Your task to perform on an android device: Open calendar and show me the third week of next month Image 0: 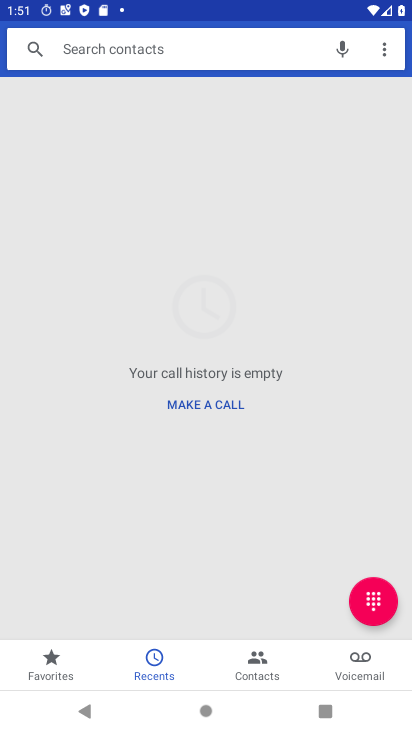
Step 0: press home button
Your task to perform on an android device: Open calendar and show me the third week of next month Image 1: 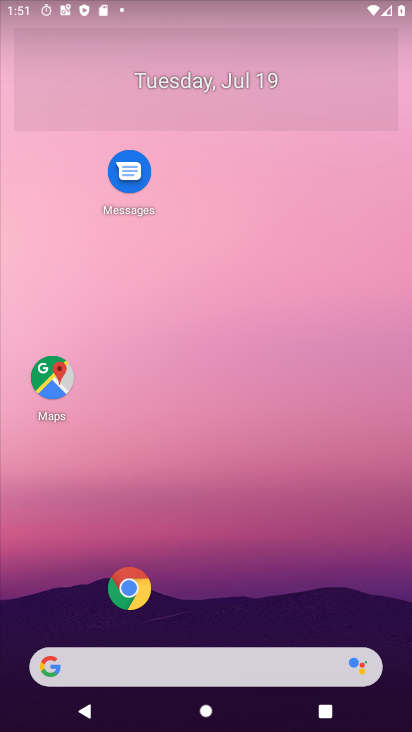
Step 1: drag from (33, 696) to (135, 284)
Your task to perform on an android device: Open calendar and show me the third week of next month Image 2: 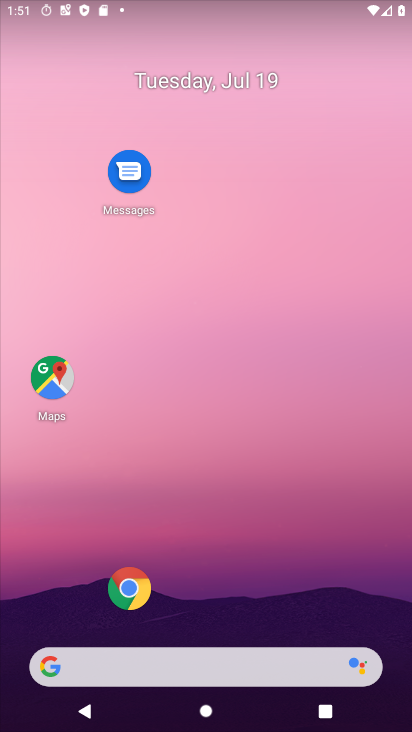
Step 2: drag from (38, 617) to (132, 168)
Your task to perform on an android device: Open calendar and show me the third week of next month Image 3: 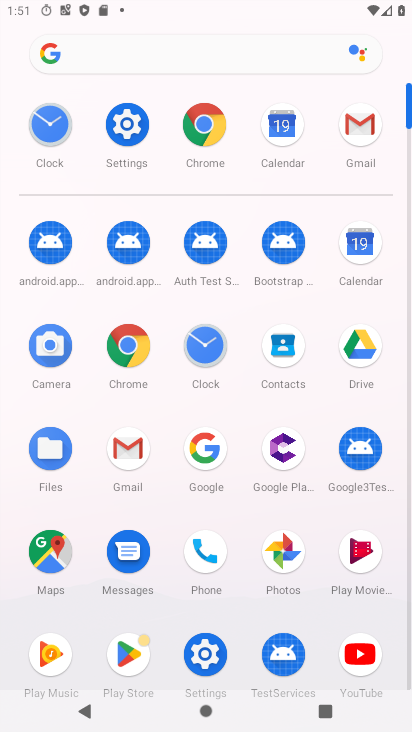
Step 3: click (361, 248)
Your task to perform on an android device: Open calendar and show me the third week of next month Image 4: 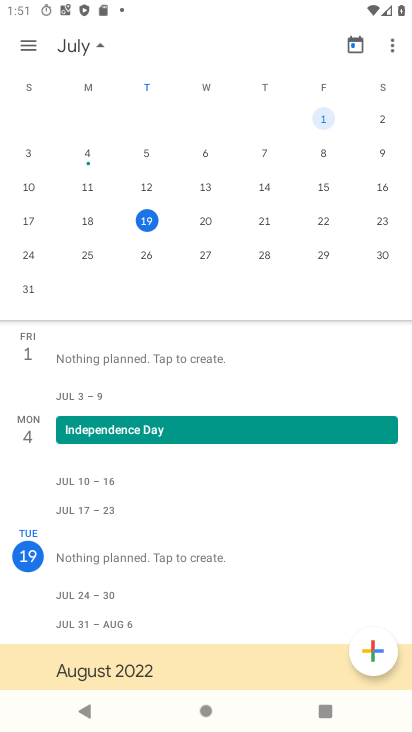
Step 4: drag from (373, 169) to (71, 226)
Your task to perform on an android device: Open calendar and show me the third week of next month Image 5: 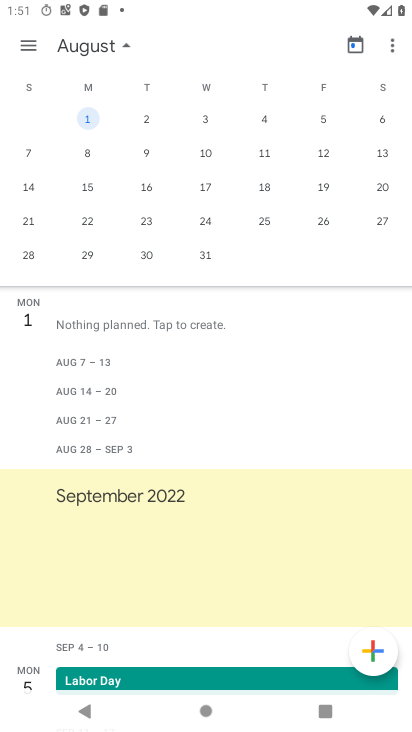
Step 5: click (85, 179)
Your task to perform on an android device: Open calendar and show me the third week of next month Image 6: 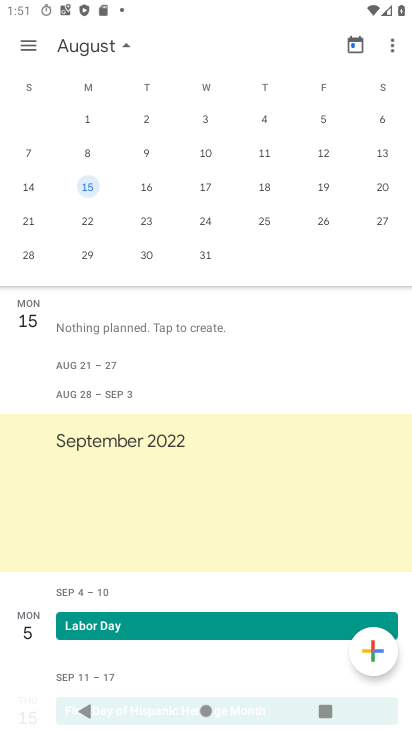
Step 6: task complete